Your task to perform on an android device: change notifications settings Image 0: 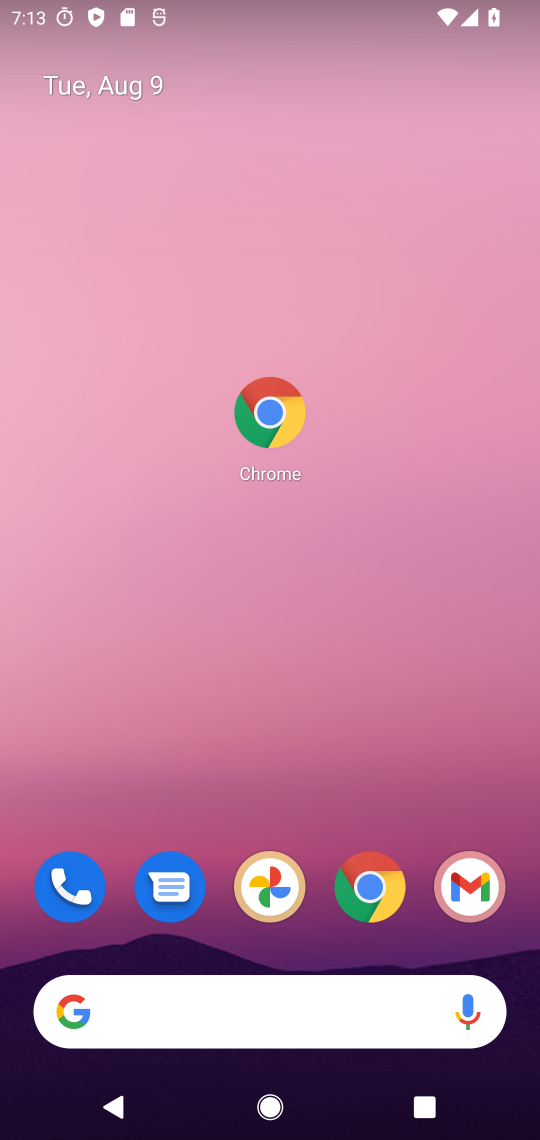
Step 0: drag from (380, 1054) to (240, 320)
Your task to perform on an android device: change notifications settings Image 1: 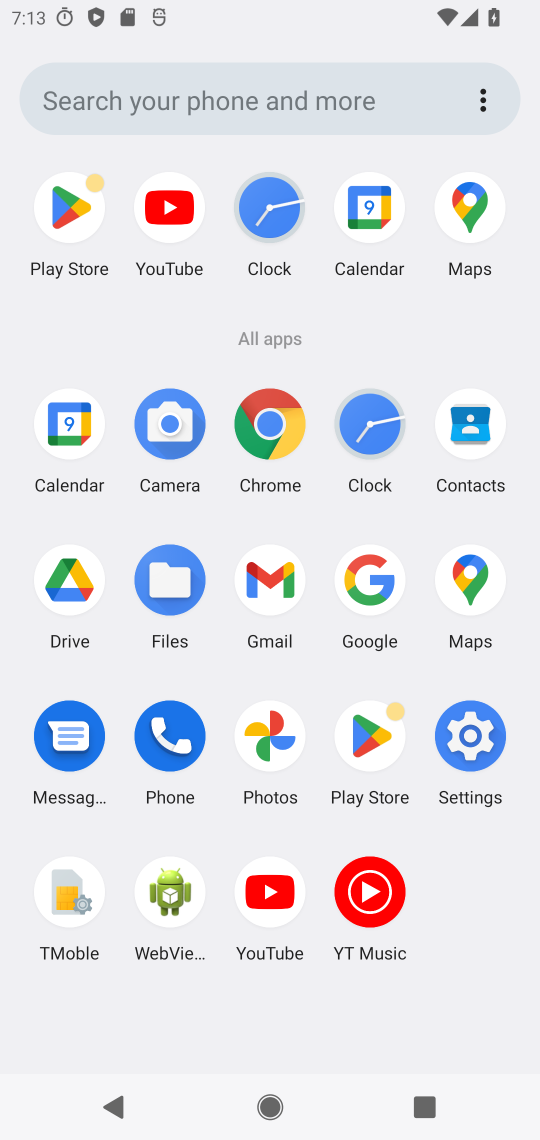
Step 1: click (465, 759)
Your task to perform on an android device: change notifications settings Image 2: 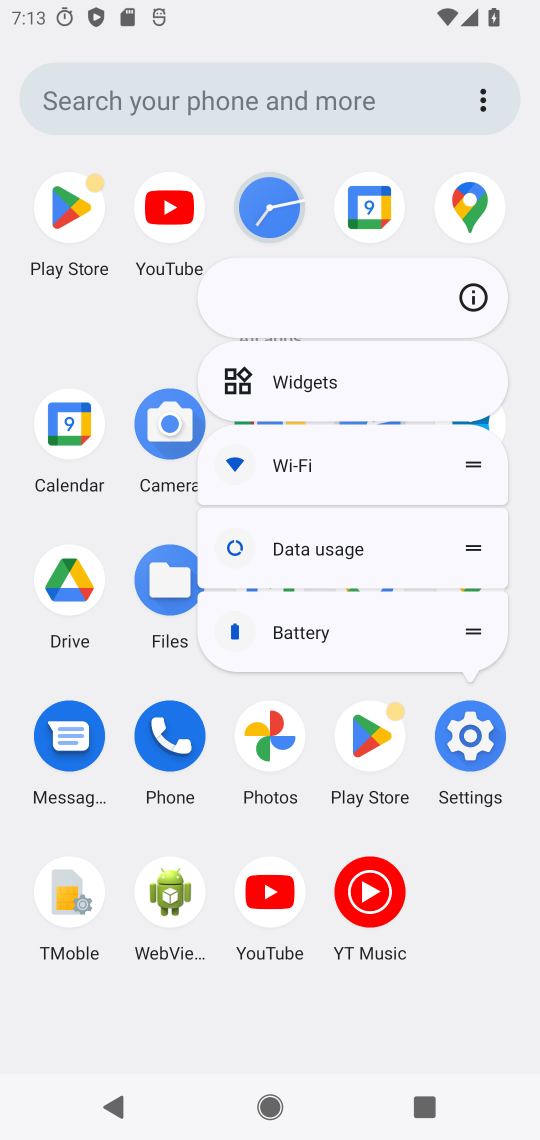
Step 2: click (472, 736)
Your task to perform on an android device: change notifications settings Image 3: 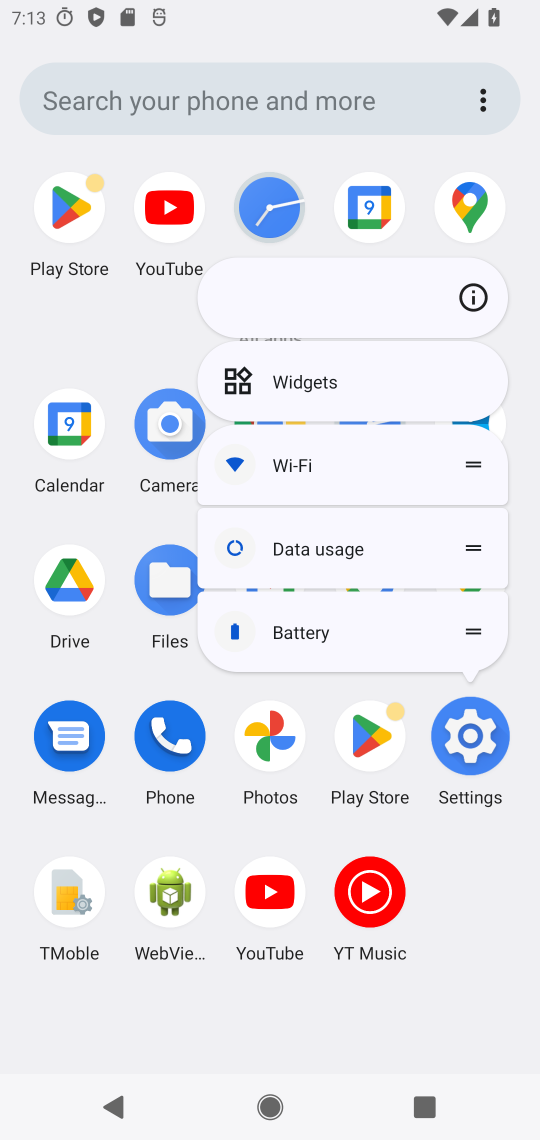
Step 3: click (471, 735)
Your task to perform on an android device: change notifications settings Image 4: 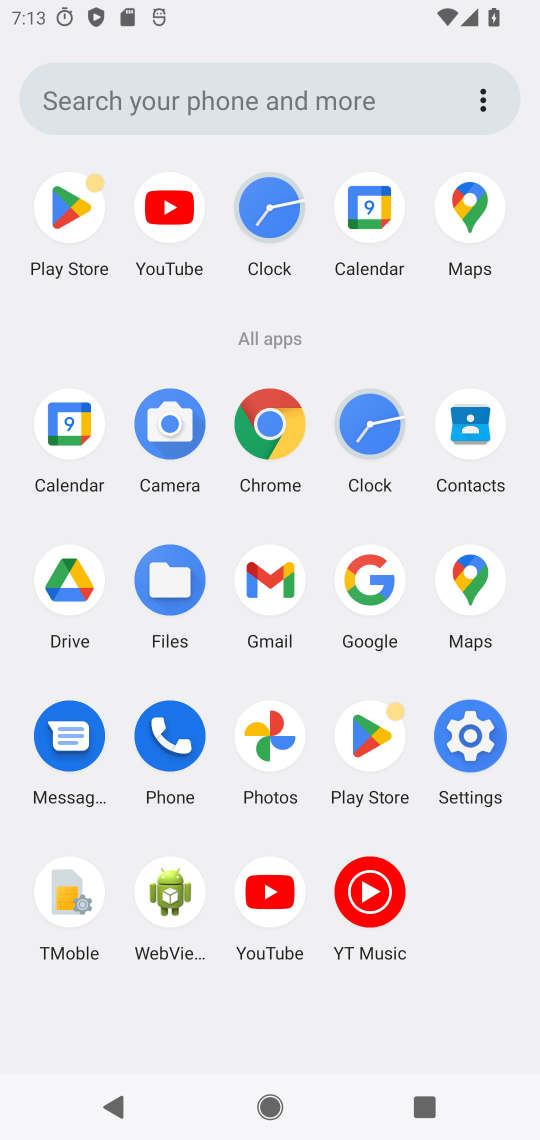
Step 4: click (469, 722)
Your task to perform on an android device: change notifications settings Image 5: 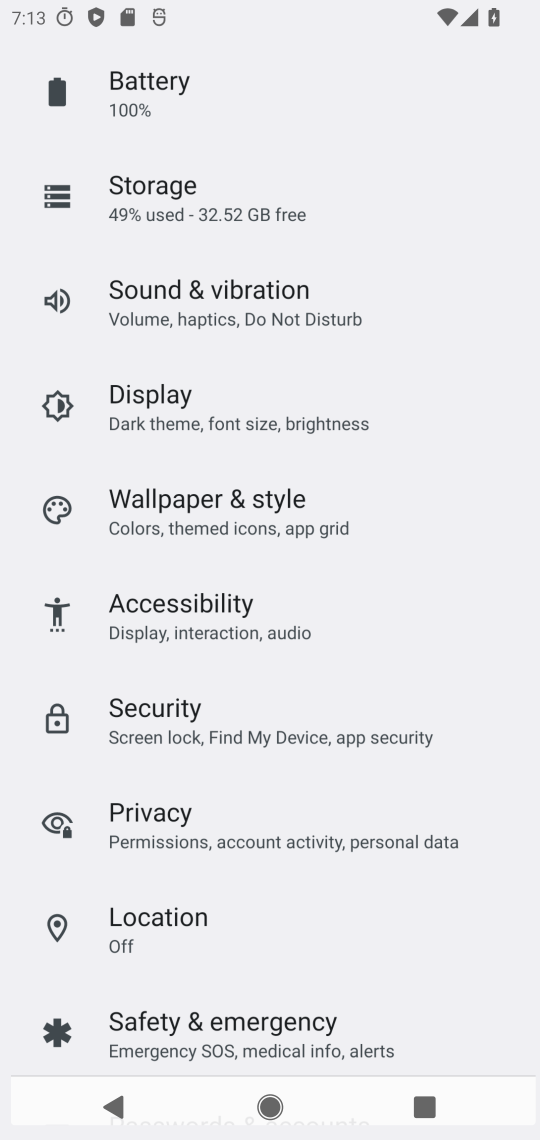
Step 5: click (469, 722)
Your task to perform on an android device: change notifications settings Image 6: 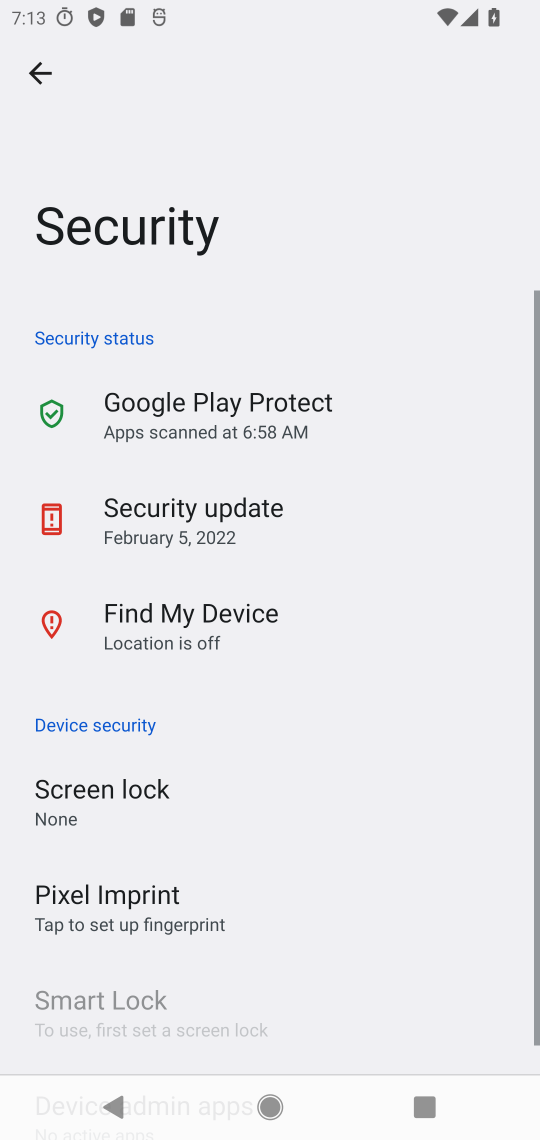
Step 6: click (29, 70)
Your task to perform on an android device: change notifications settings Image 7: 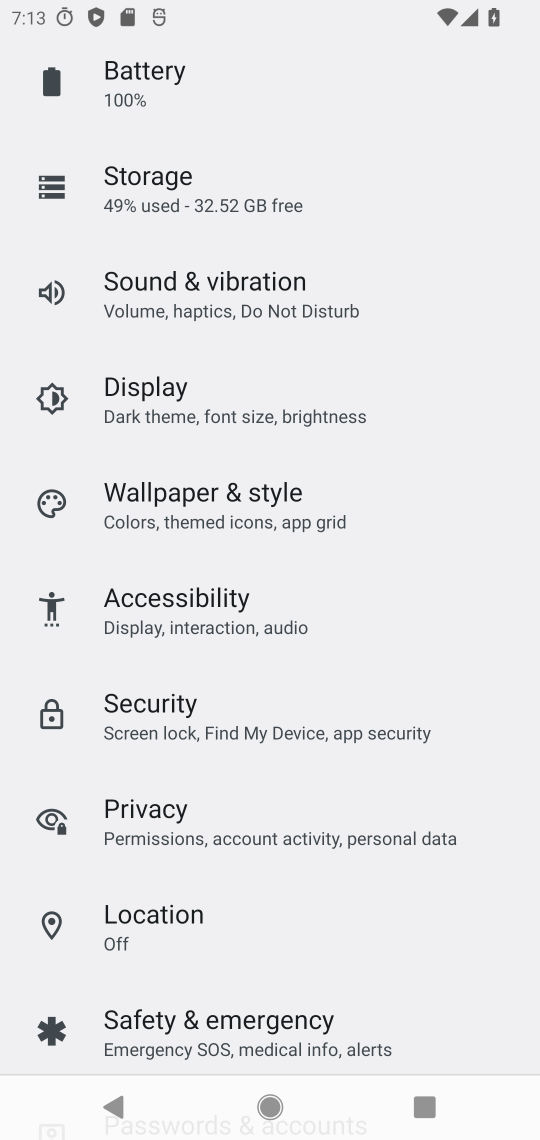
Step 7: drag from (188, 267) to (193, 763)
Your task to perform on an android device: change notifications settings Image 8: 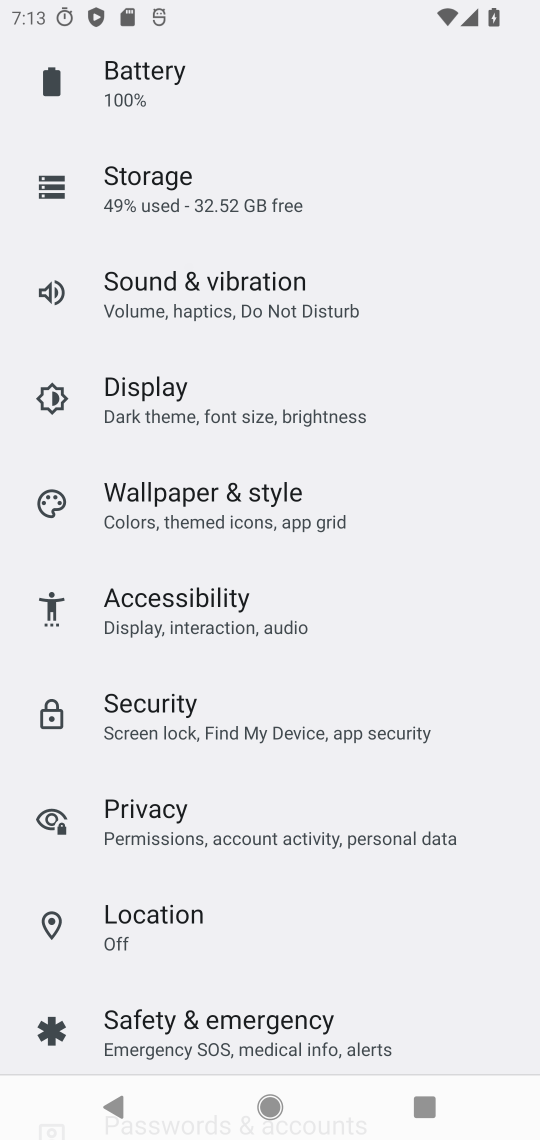
Step 8: drag from (170, 446) to (208, 835)
Your task to perform on an android device: change notifications settings Image 9: 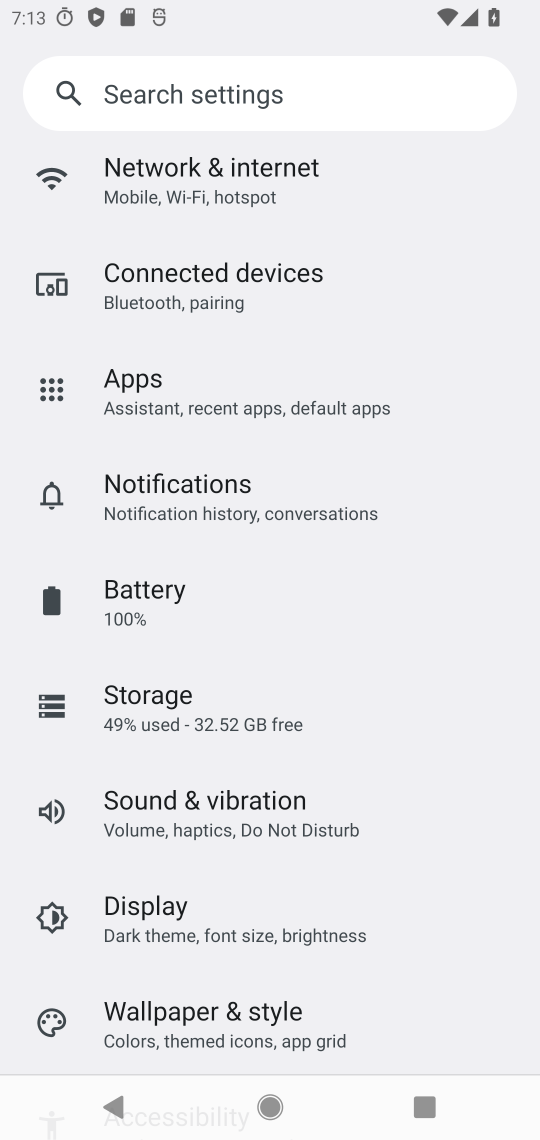
Step 9: click (155, 497)
Your task to perform on an android device: change notifications settings Image 10: 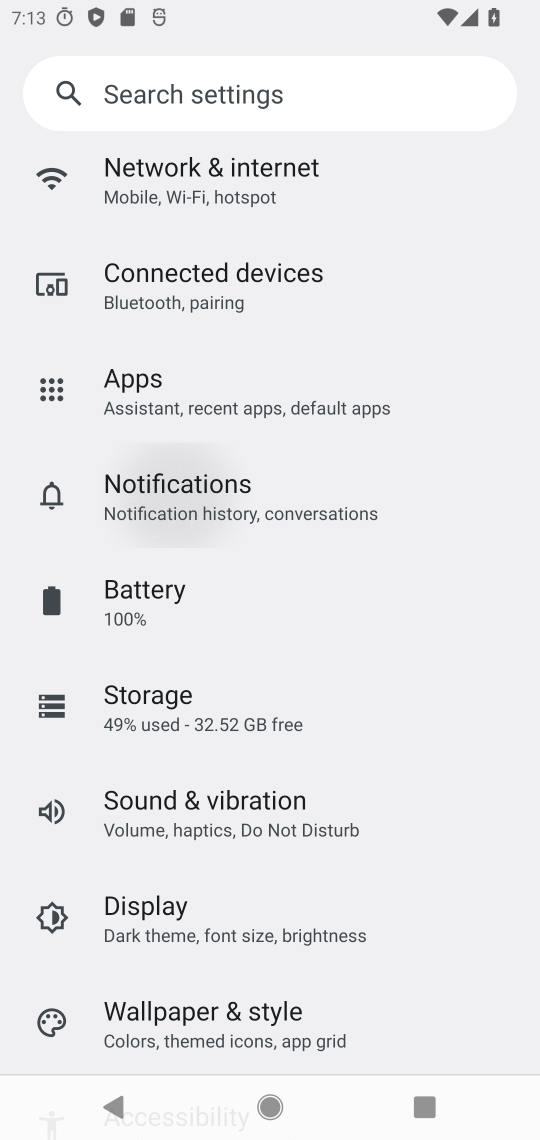
Step 10: click (163, 496)
Your task to perform on an android device: change notifications settings Image 11: 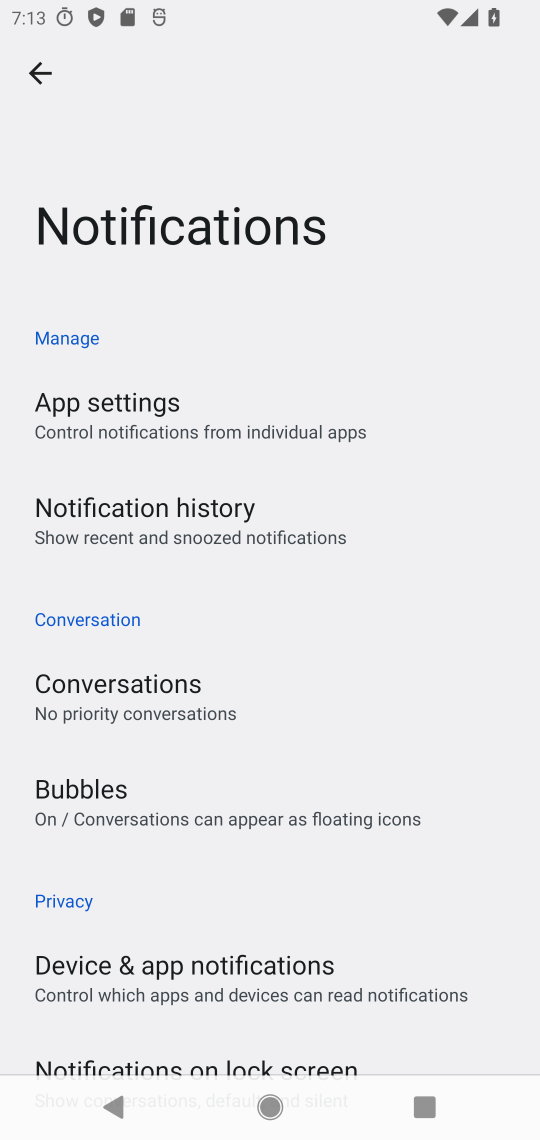
Step 11: click (119, 509)
Your task to perform on an android device: change notifications settings Image 12: 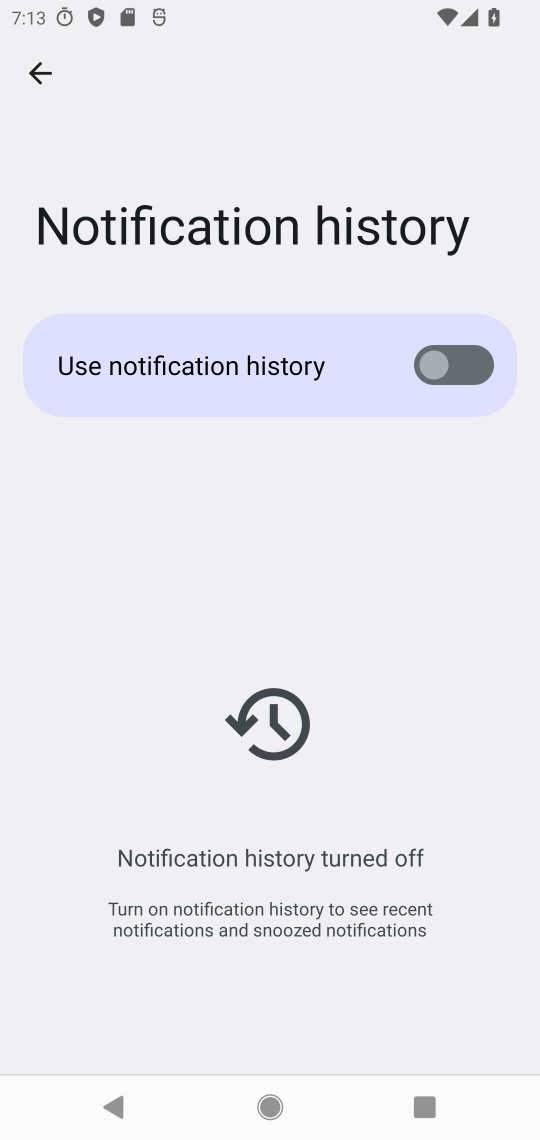
Step 12: click (412, 359)
Your task to perform on an android device: change notifications settings Image 13: 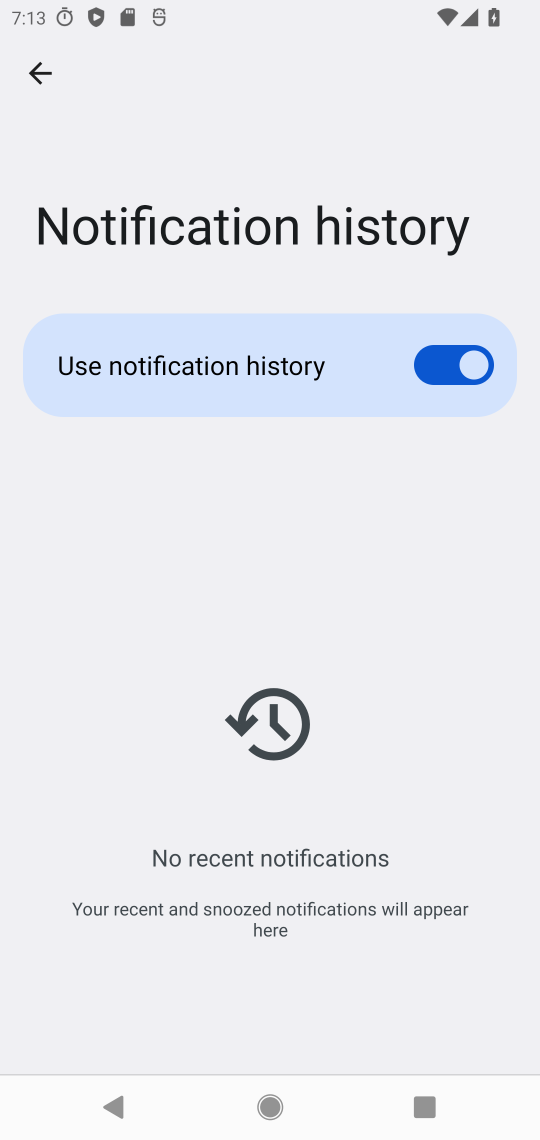
Step 13: task complete